Your task to perform on an android device: turn notification dots on Image 0: 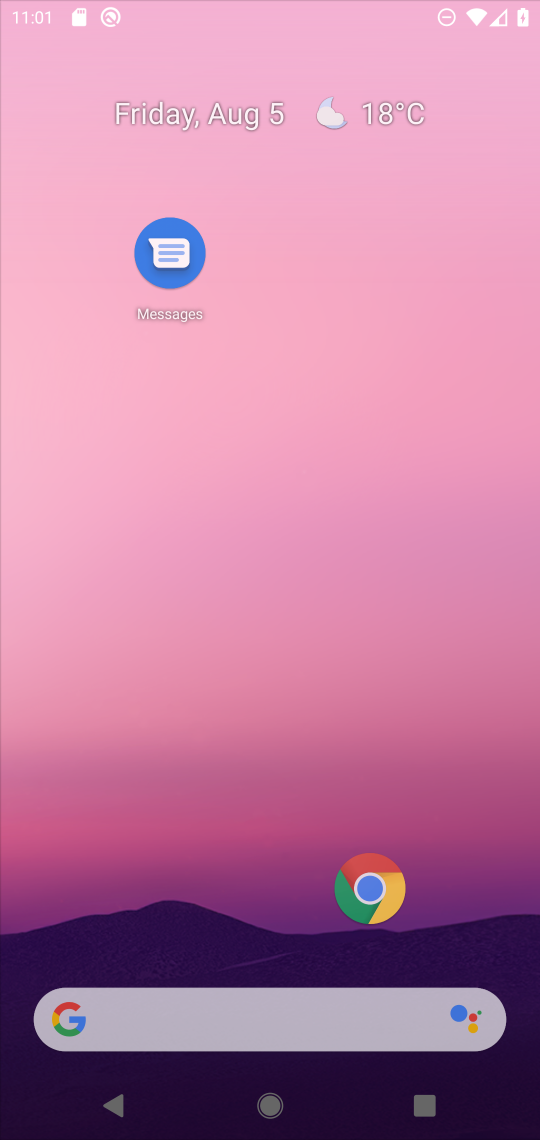
Step 0: press home button
Your task to perform on an android device: turn notification dots on Image 1: 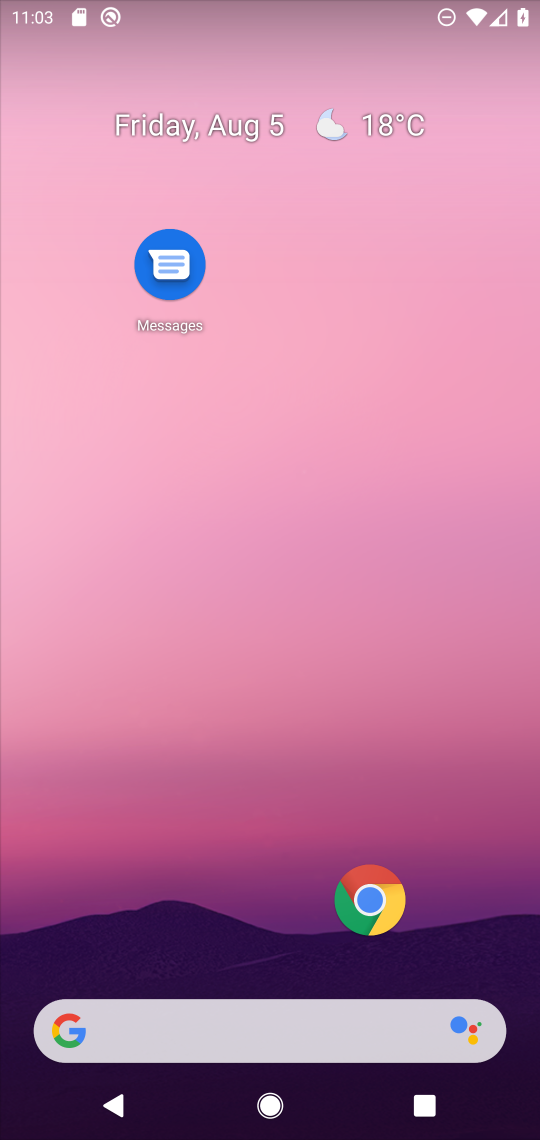
Step 1: drag from (95, 936) to (469, 21)
Your task to perform on an android device: turn notification dots on Image 2: 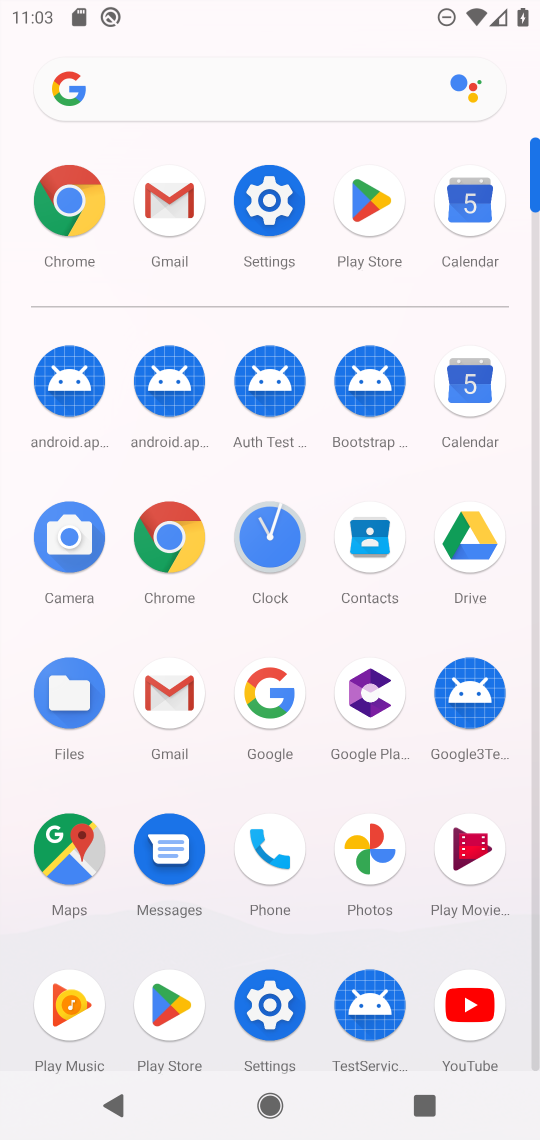
Step 2: click (278, 1026)
Your task to perform on an android device: turn notification dots on Image 3: 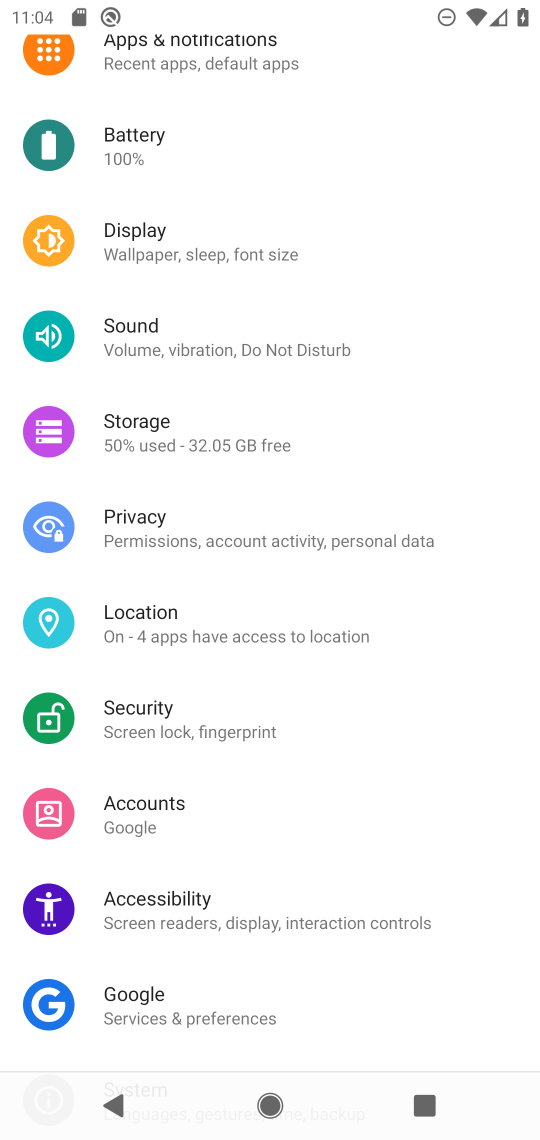
Step 3: click (189, 71)
Your task to perform on an android device: turn notification dots on Image 4: 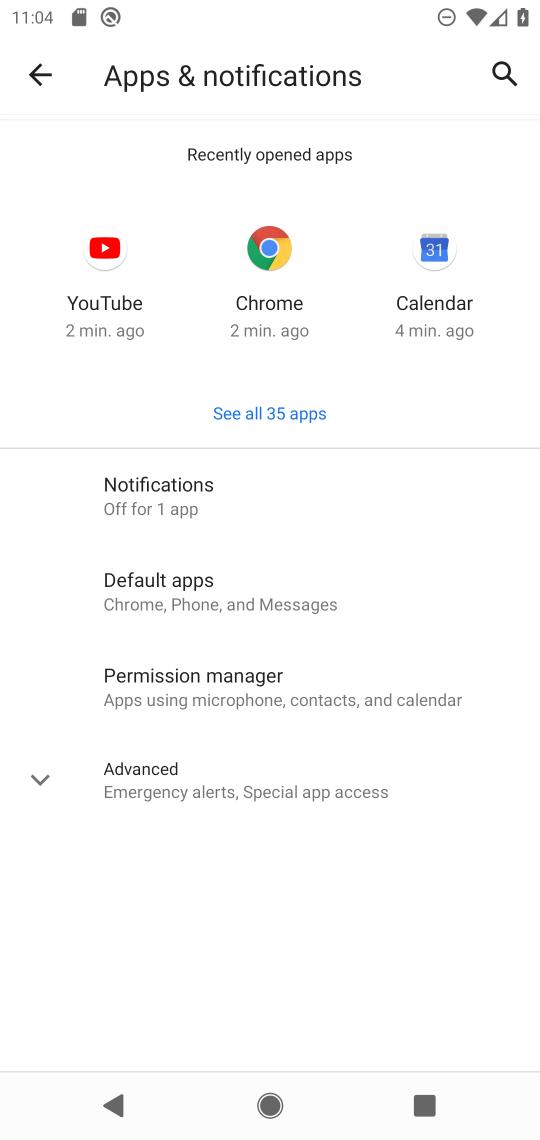
Step 4: click (204, 789)
Your task to perform on an android device: turn notification dots on Image 5: 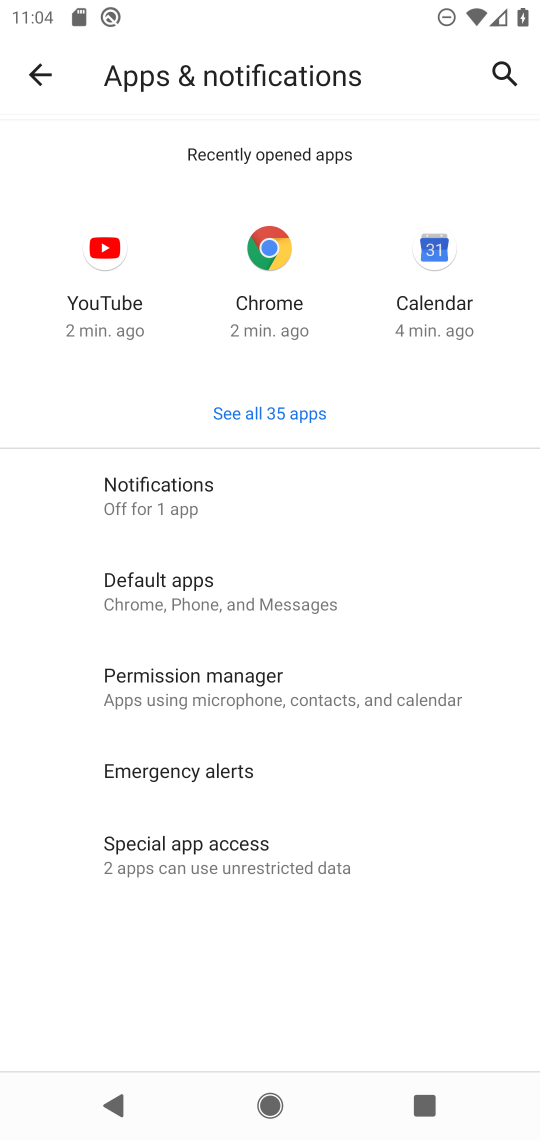
Step 5: click (198, 514)
Your task to perform on an android device: turn notification dots on Image 6: 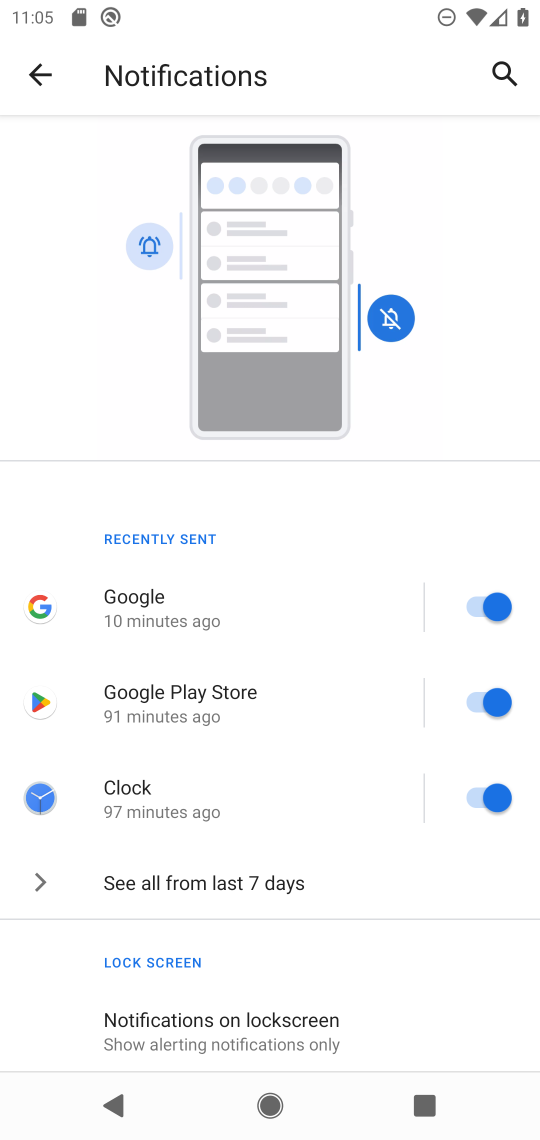
Step 6: drag from (185, 1013) to (117, 376)
Your task to perform on an android device: turn notification dots on Image 7: 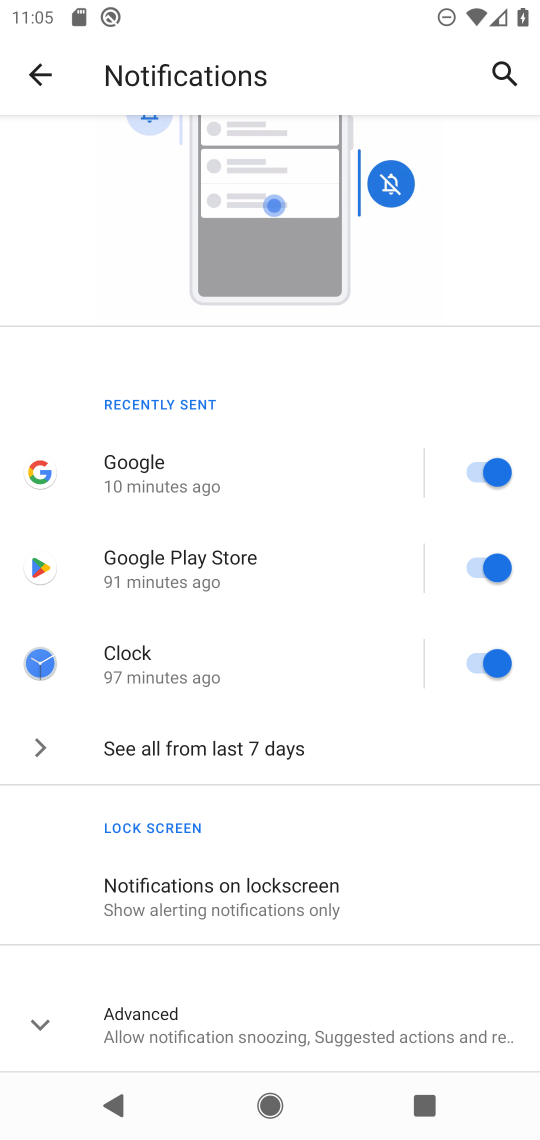
Step 7: click (159, 1016)
Your task to perform on an android device: turn notification dots on Image 8: 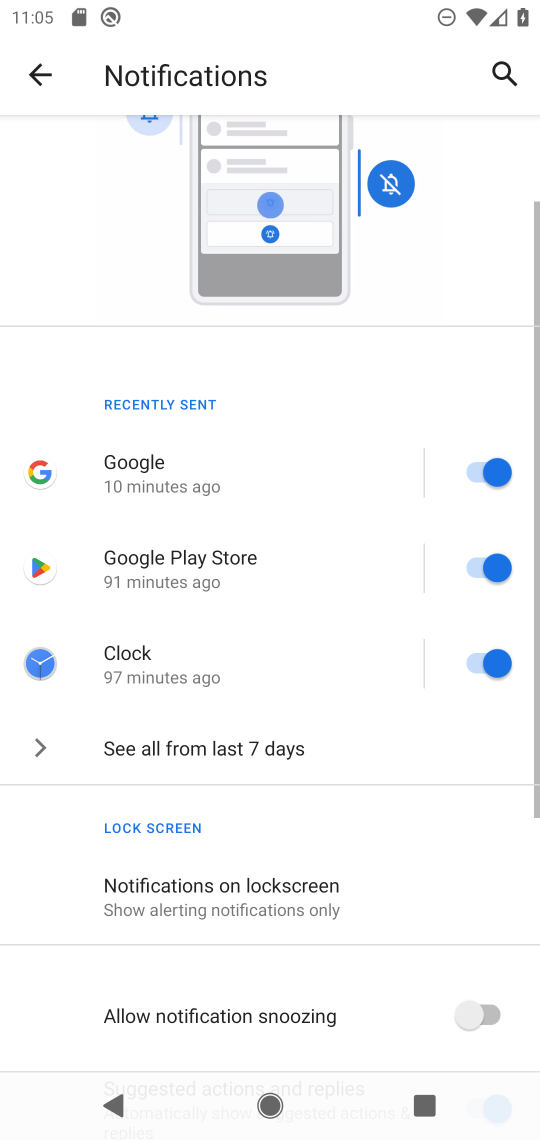
Step 8: drag from (373, 926) to (352, 487)
Your task to perform on an android device: turn notification dots on Image 9: 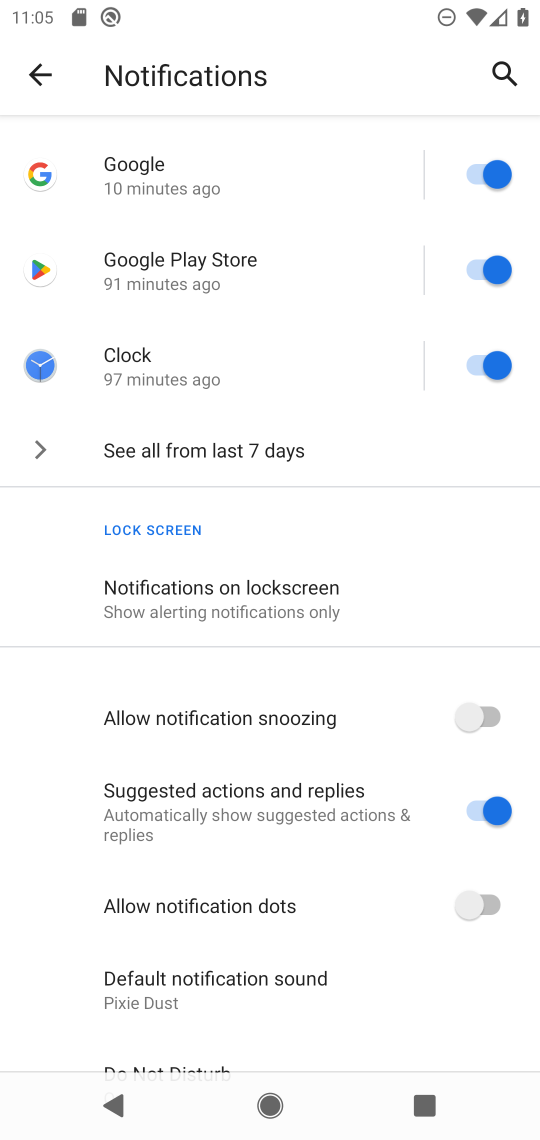
Step 9: click (284, 896)
Your task to perform on an android device: turn notification dots on Image 10: 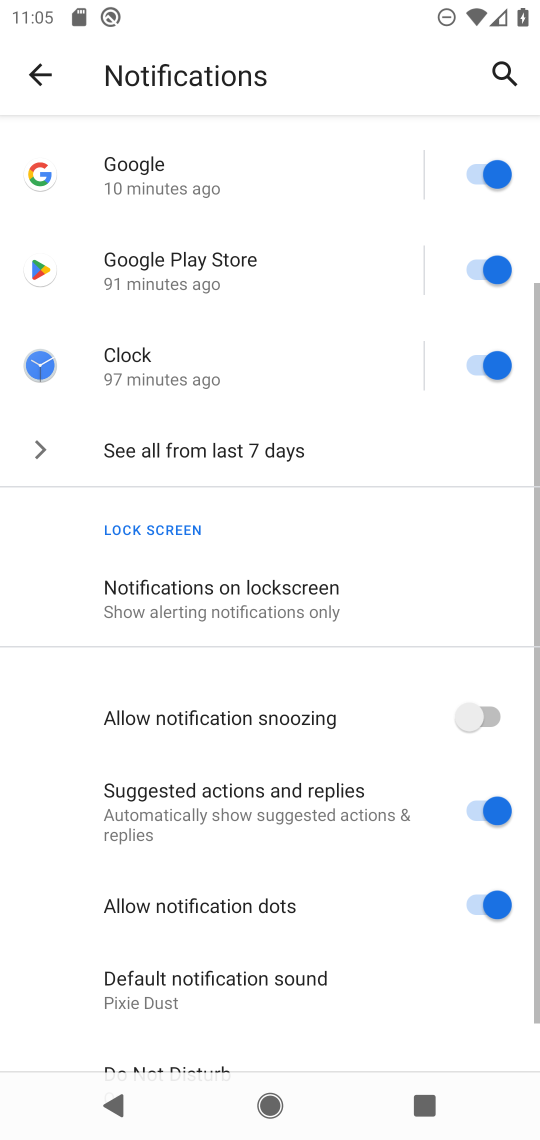
Step 10: task complete